Your task to perform on an android device: When is my next appointment? Image 0: 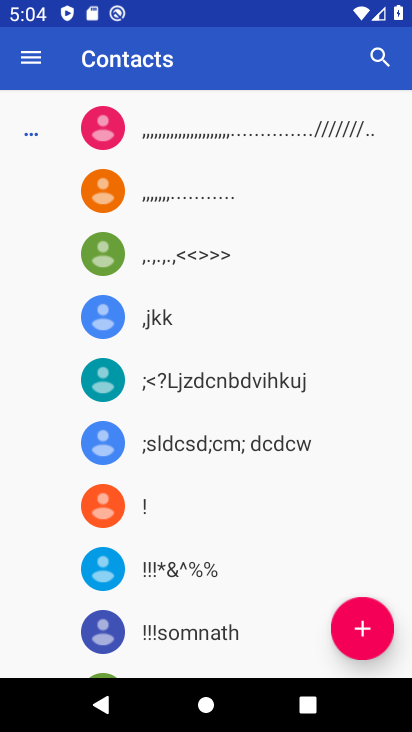
Step 0: press home button
Your task to perform on an android device: When is my next appointment? Image 1: 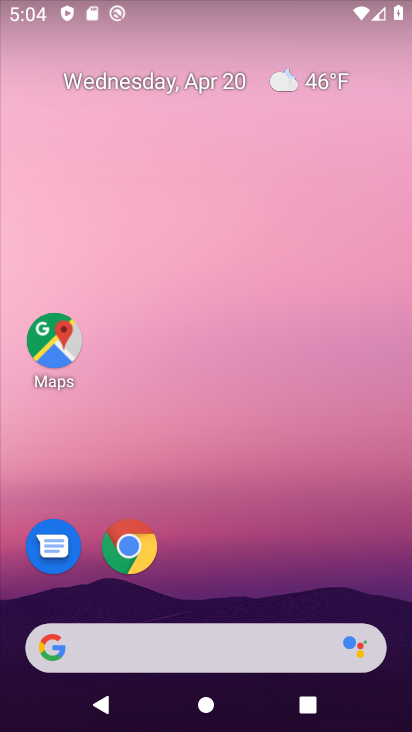
Step 1: drag from (302, 427) to (280, 120)
Your task to perform on an android device: When is my next appointment? Image 2: 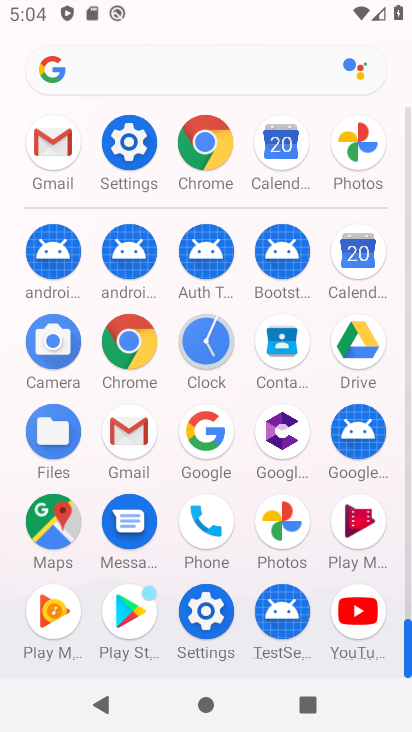
Step 2: click (376, 269)
Your task to perform on an android device: When is my next appointment? Image 3: 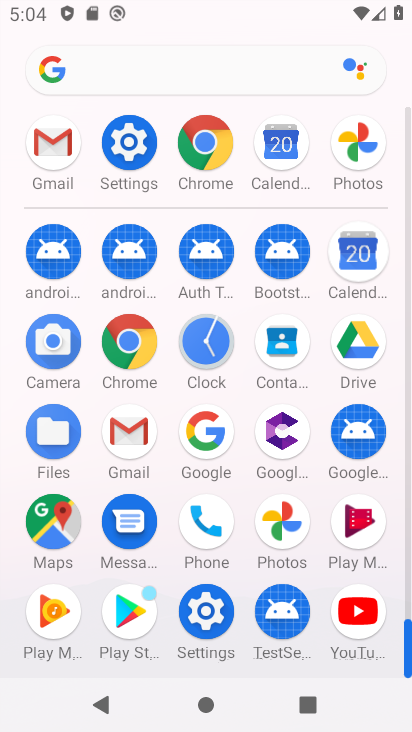
Step 3: click (376, 268)
Your task to perform on an android device: When is my next appointment? Image 4: 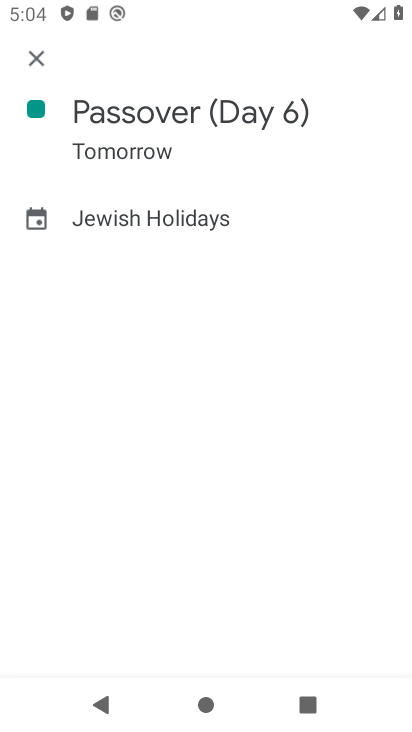
Step 4: click (51, 65)
Your task to perform on an android device: When is my next appointment? Image 5: 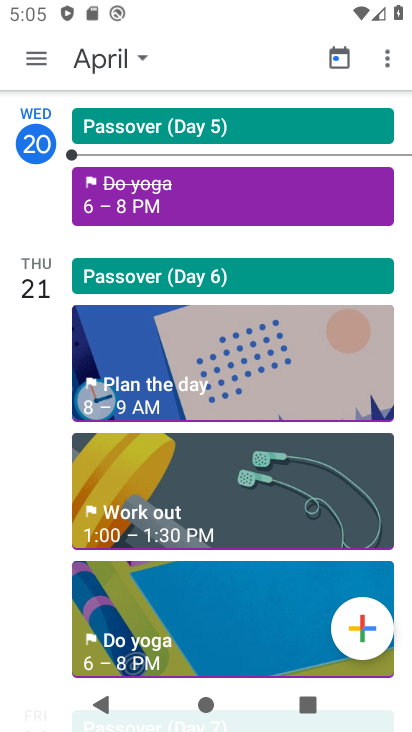
Step 5: click (94, 58)
Your task to perform on an android device: When is my next appointment? Image 6: 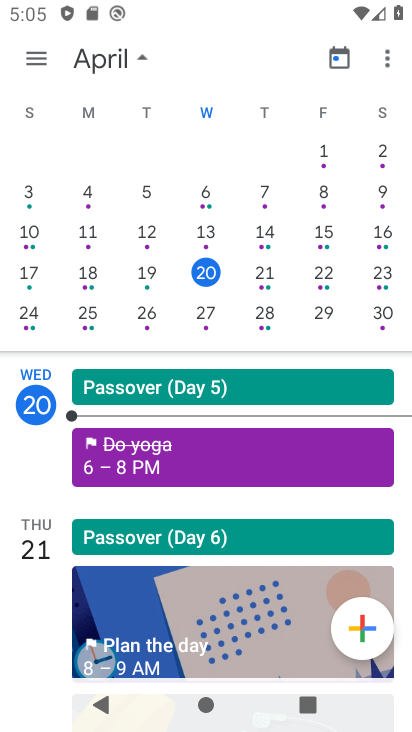
Step 6: click (260, 261)
Your task to perform on an android device: When is my next appointment? Image 7: 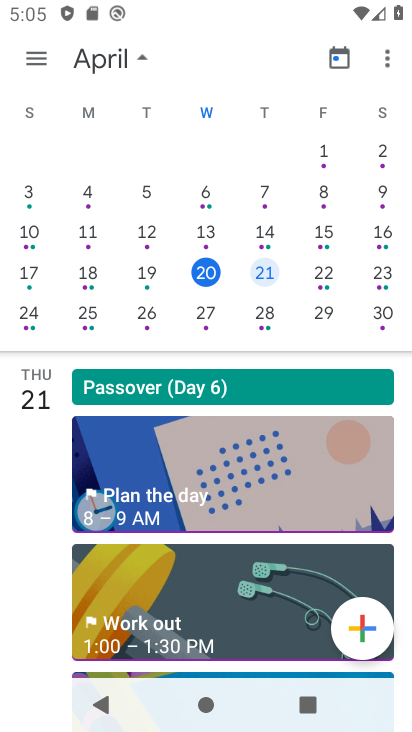
Step 7: task complete